Your task to perform on an android device: turn off location history Image 0: 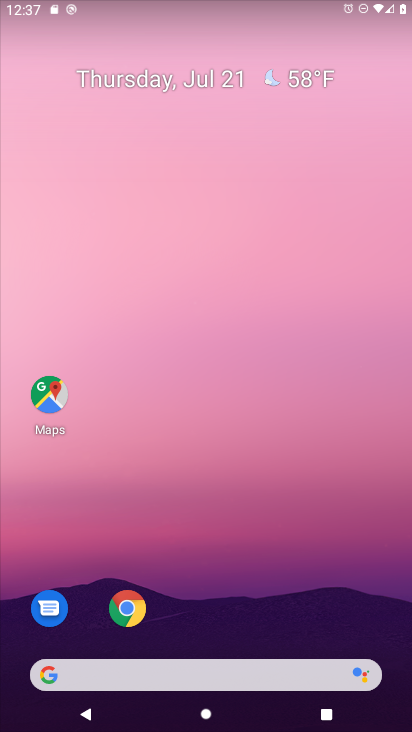
Step 0: press home button
Your task to perform on an android device: turn off location history Image 1: 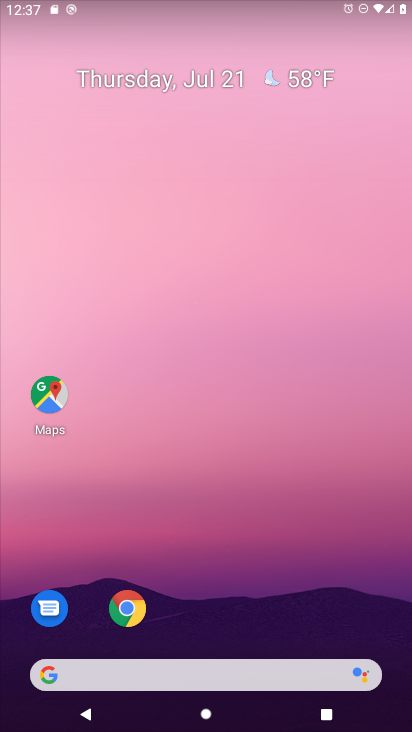
Step 1: drag from (219, 635) to (95, 3)
Your task to perform on an android device: turn off location history Image 2: 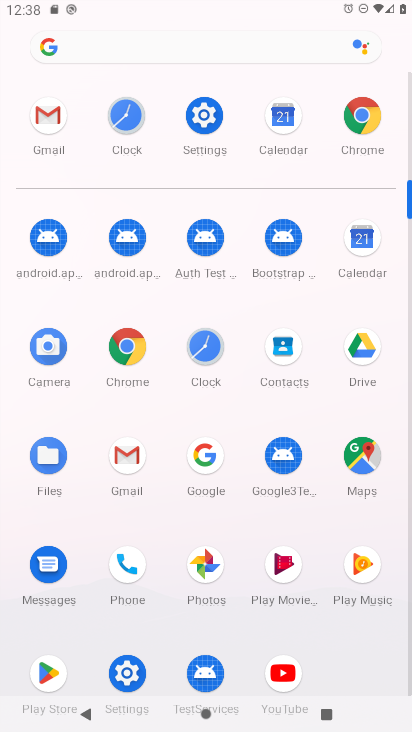
Step 2: click (198, 111)
Your task to perform on an android device: turn off location history Image 3: 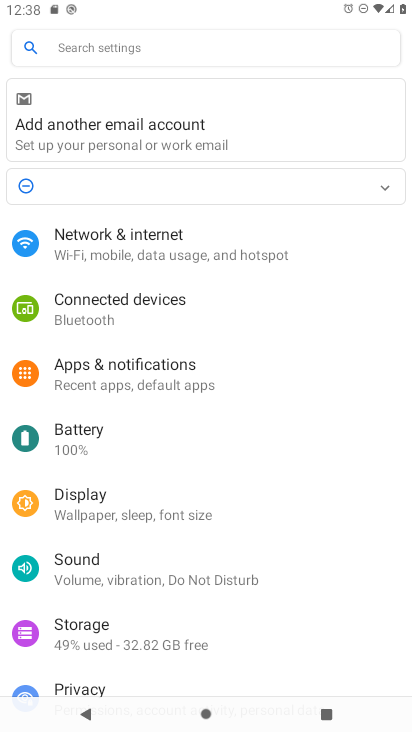
Step 3: drag from (289, 538) to (273, 64)
Your task to perform on an android device: turn off location history Image 4: 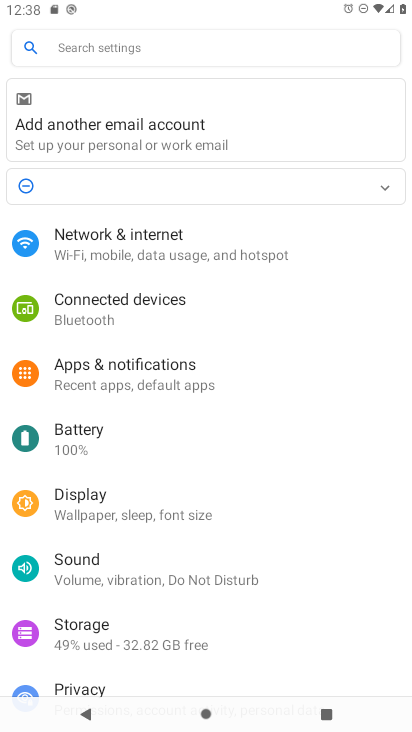
Step 4: drag from (341, 626) to (316, 192)
Your task to perform on an android device: turn off location history Image 5: 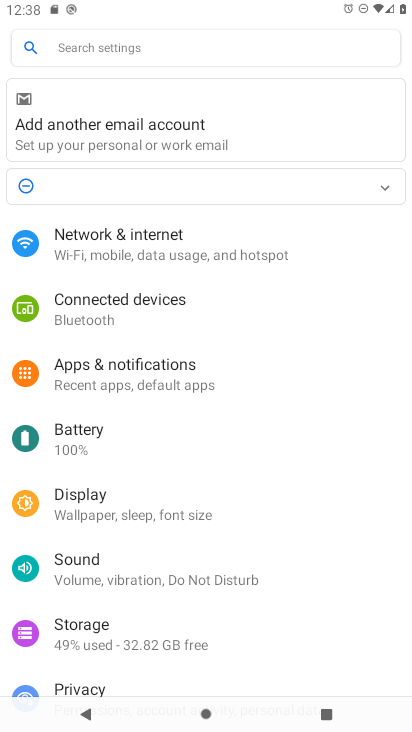
Step 5: drag from (363, 537) to (346, 10)
Your task to perform on an android device: turn off location history Image 6: 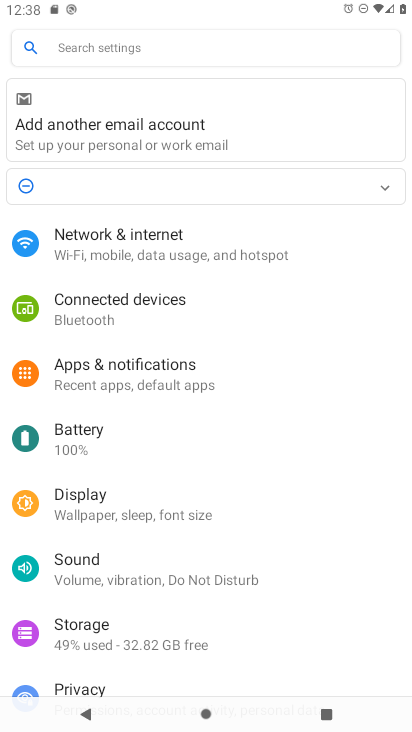
Step 6: drag from (305, 646) to (319, 54)
Your task to perform on an android device: turn off location history Image 7: 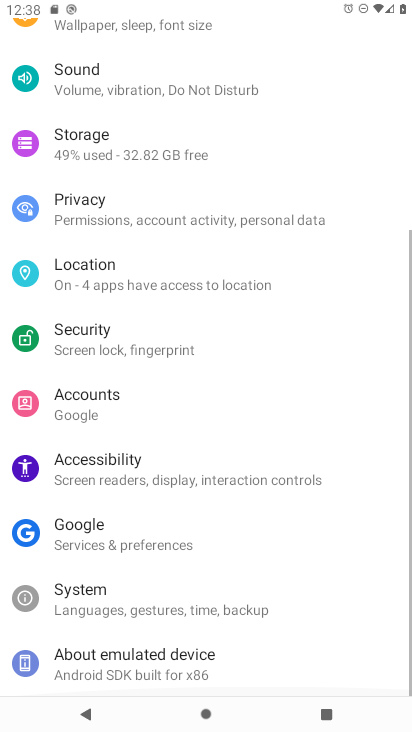
Step 7: drag from (282, 535) to (389, 8)
Your task to perform on an android device: turn off location history Image 8: 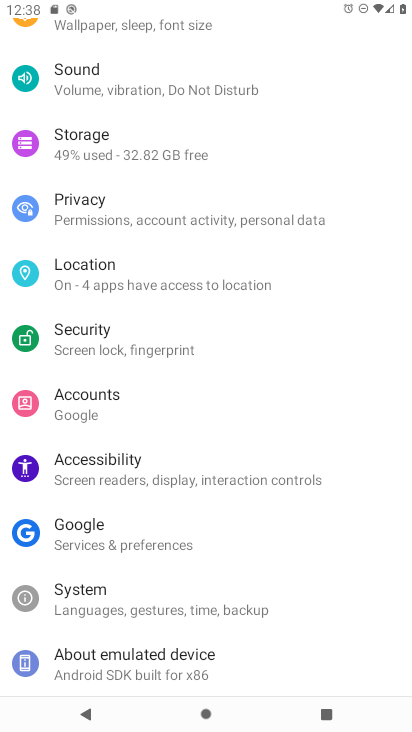
Step 8: click (91, 268)
Your task to perform on an android device: turn off location history Image 9: 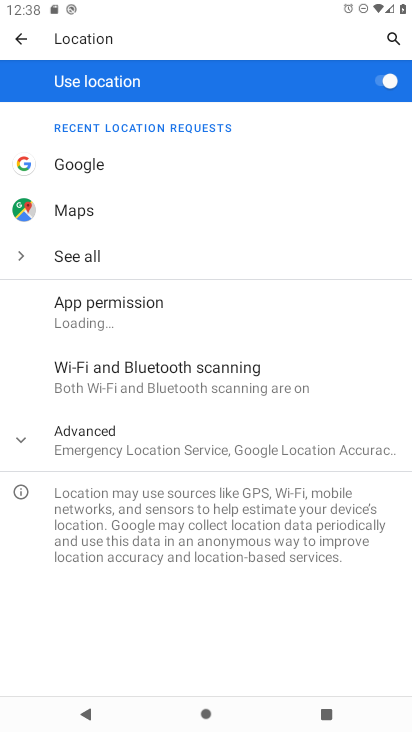
Step 9: click (116, 448)
Your task to perform on an android device: turn off location history Image 10: 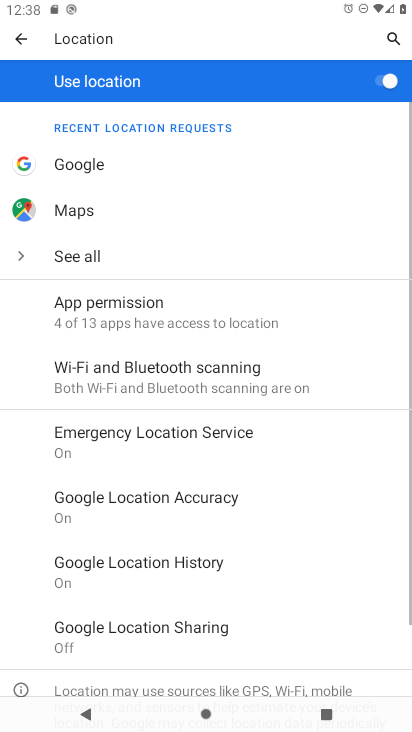
Step 10: click (143, 567)
Your task to perform on an android device: turn off location history Image 11: 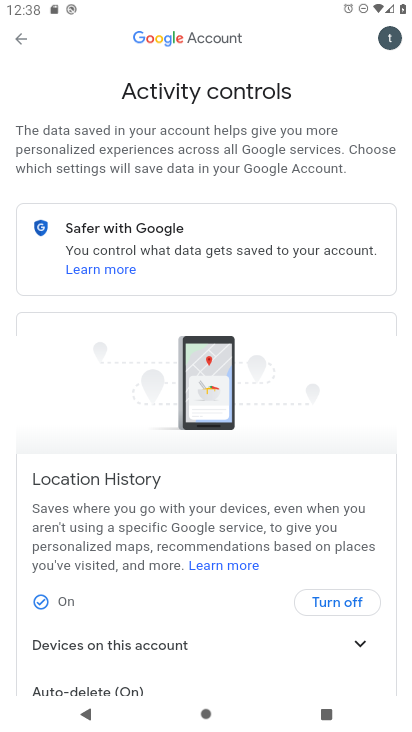
Step 11: click (334, 603)
Your task to perform on an android device: turn off location history Image 12: 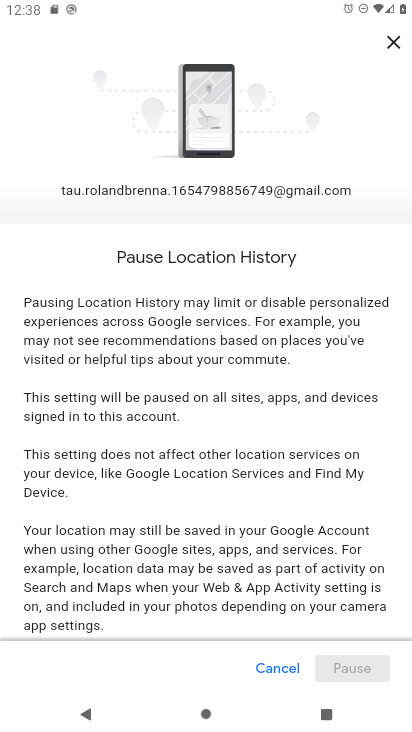
Step 12: drag from (377, 613) to (330, 36)
Your task to perform on an android device: turn off location history Image 13: 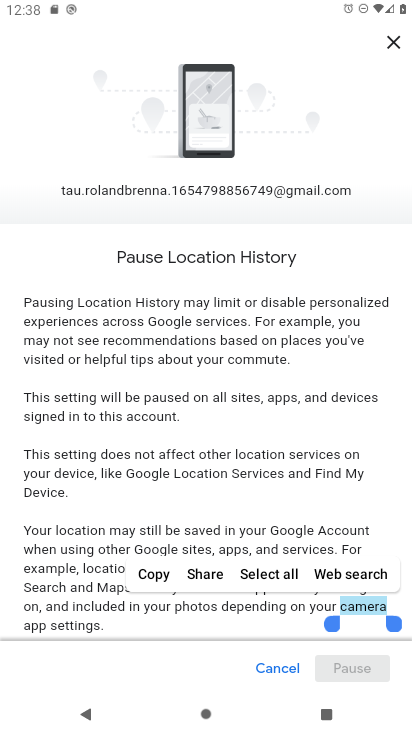
Step 13: drag from (331, 510) to (328, 12)
Your task to perform on an android device: turn off location history Image 14: 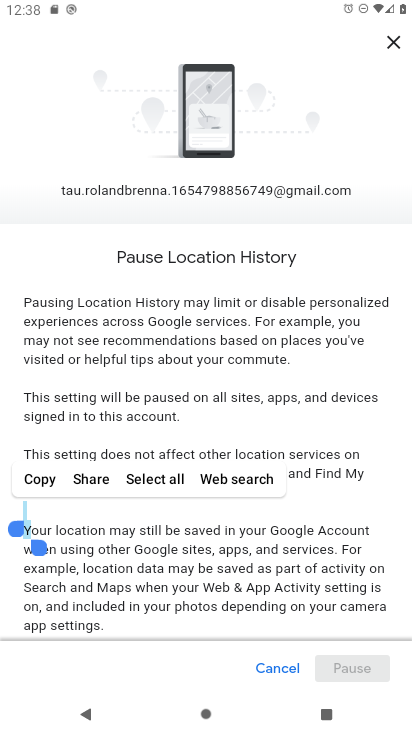
Step 14: drag from (339, 428) to (367, 5)
Your task to perform on an android device: turn off location history Image 15: 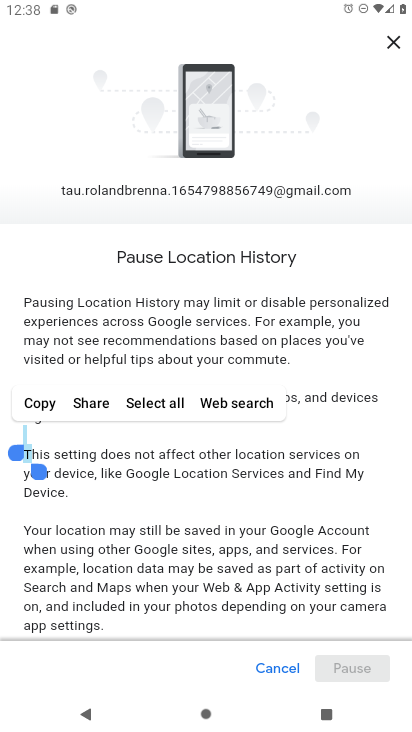
Step 15: drag from (377, 624) to (328, 18)
Your task to perform on an android device: turn off location history Image 16: 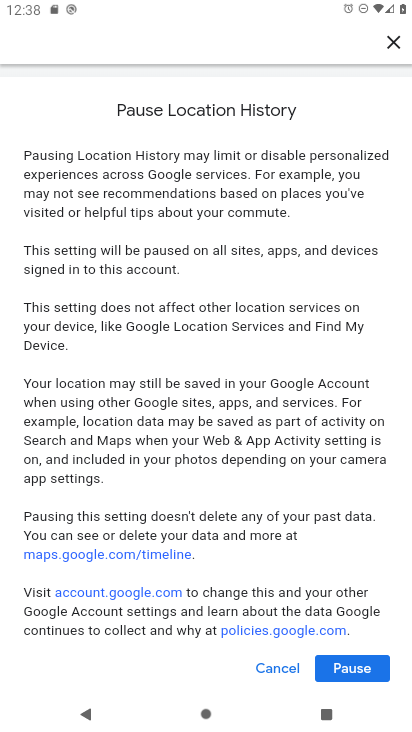
Step 16: click (343, 673)
Your task to perform on an android device: turn off location history Image 17: 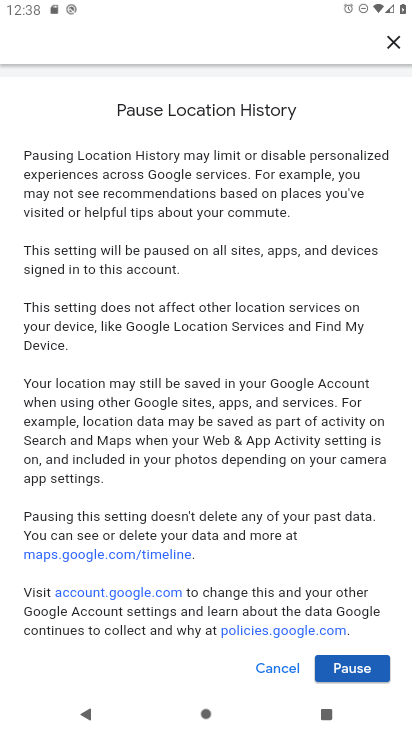
Step 17: click (343, 673)
Your task to perform on an android device: turn off location history Image 18: 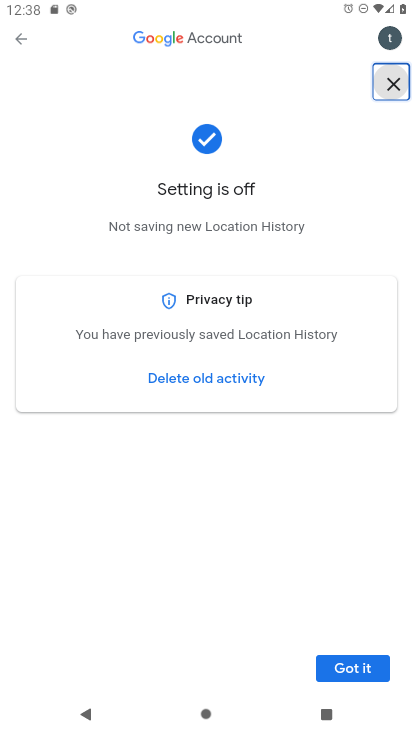
Step 18: click (367, 664)
Your task to perform on an android device: turn off location history Image 19: 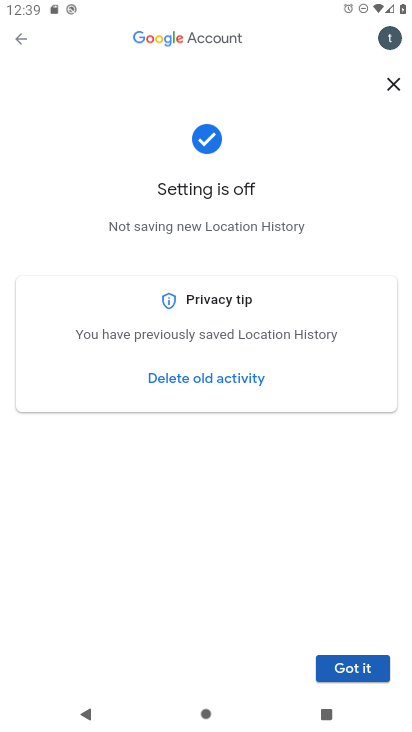
Step 19: click (360, 668)
Your task to perform on an android device: turn off location history Image 20: 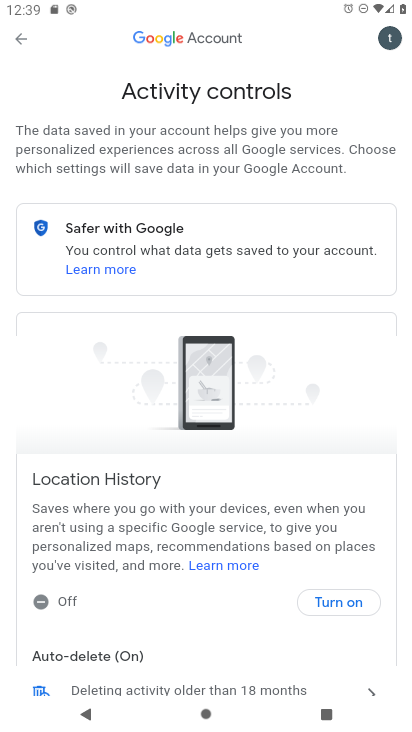
Step 20: task complete